Your task to perform on an android device: Go to calendar. Show me events next week Image 0: 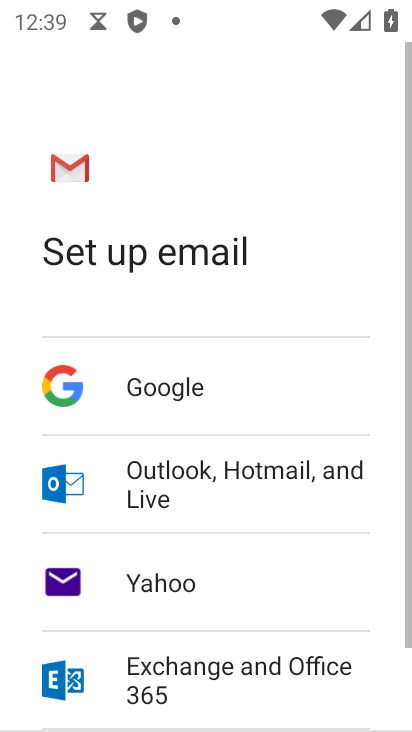
Step 0: press home button
Your task to perform on an android device: Go to calendar. Show me events next week Image 1: 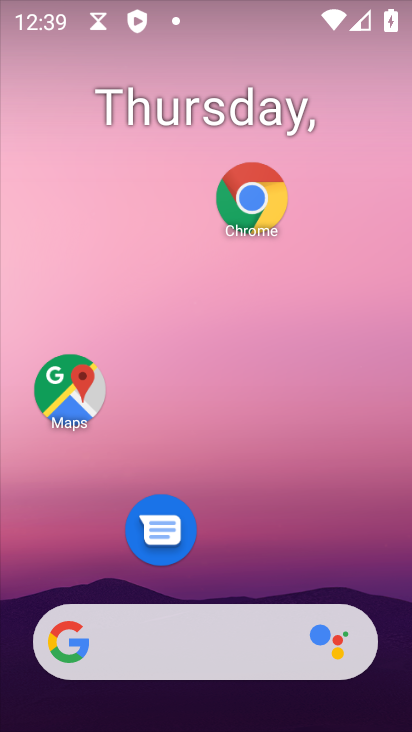
Step 1: drag from (206, 590) to (249, 17)
Your task to perform on an android device: Go to calendar. Show me events next week Image 2: 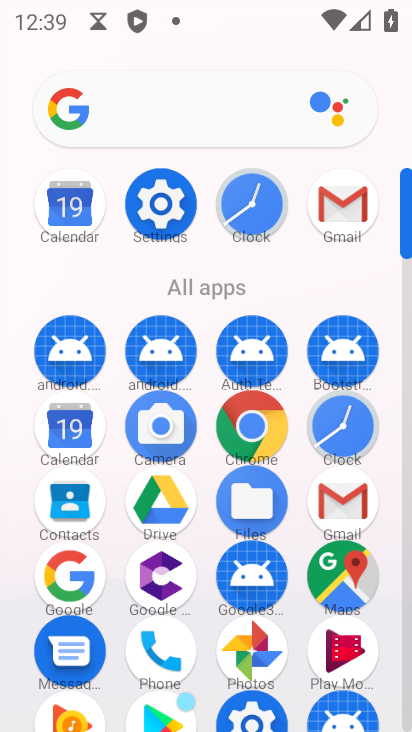
Step 2: click (62, 199)
Your task to perform on an android device: Go to calendar. Show me events next week Image 3: 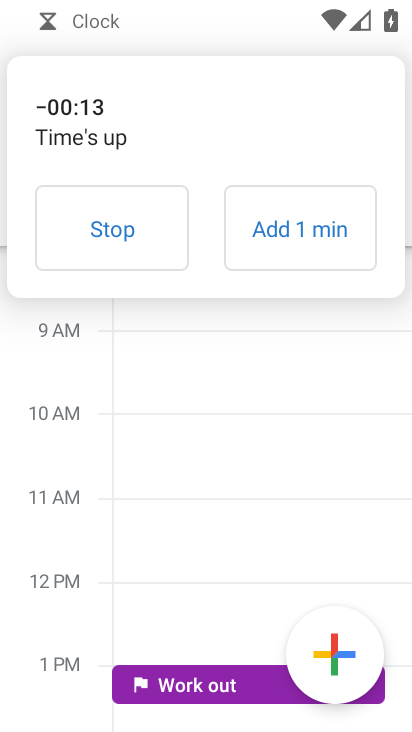
Step 3: click (152, 217)
Your task to perform on an android device: Go to calendar. Show me events next week Image 4: 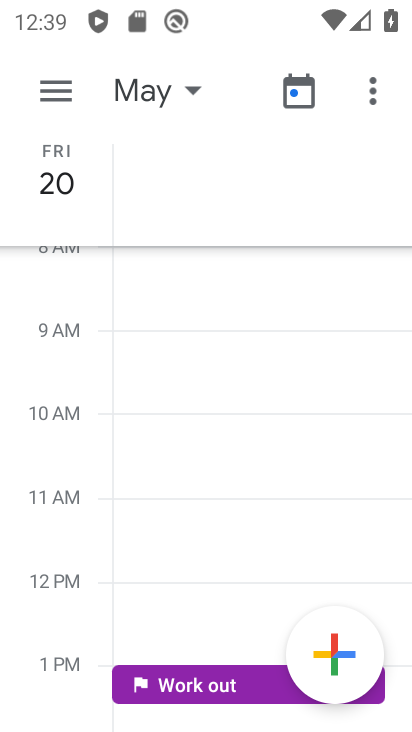
Step 4: task complete